Your task to perform on an android device: manage bookmarks in the chrome app Image 0: 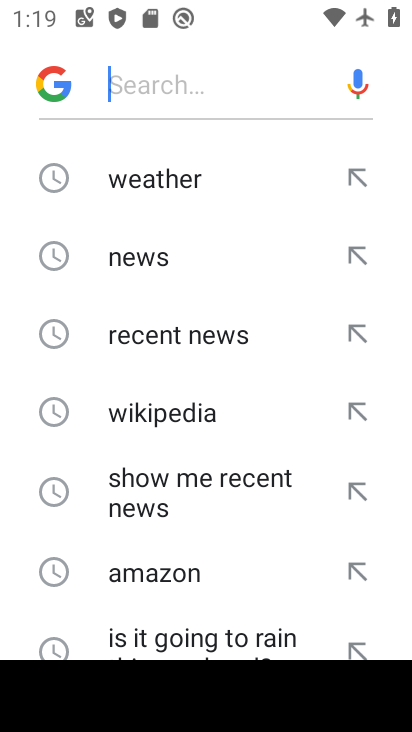
Step 0: press home button
Your task to perform on an android device: manage bookmarks in the chrome app Image 1: 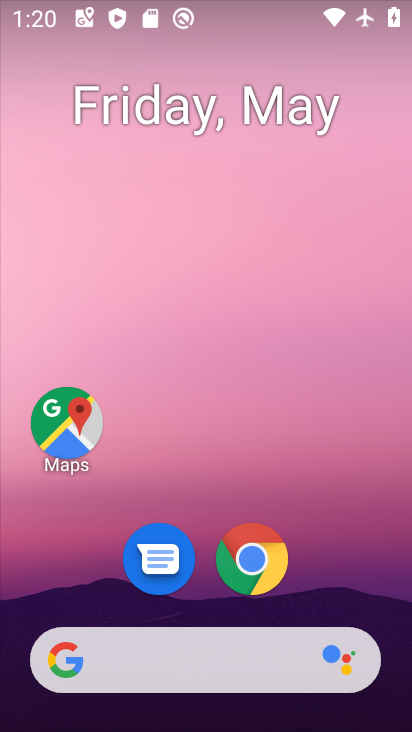
Step 1: click (257, 549)
Your task to perform on an android device: manage bookmarks in the chrome app Image 2: 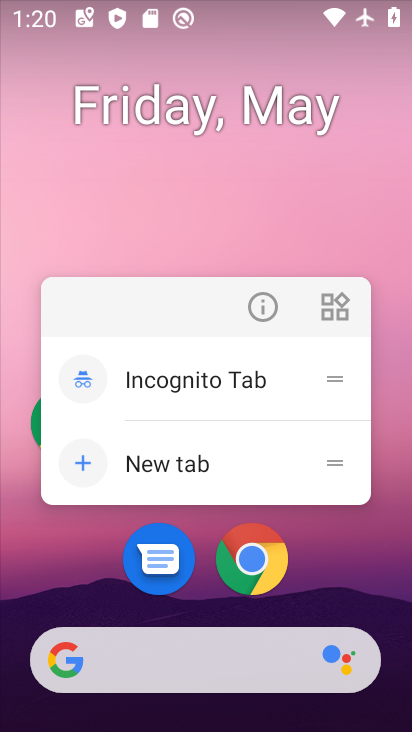
Step 2: click (260, 550)
Your task to perform on an android device: manage bookmarks in the chrome app Image 3: 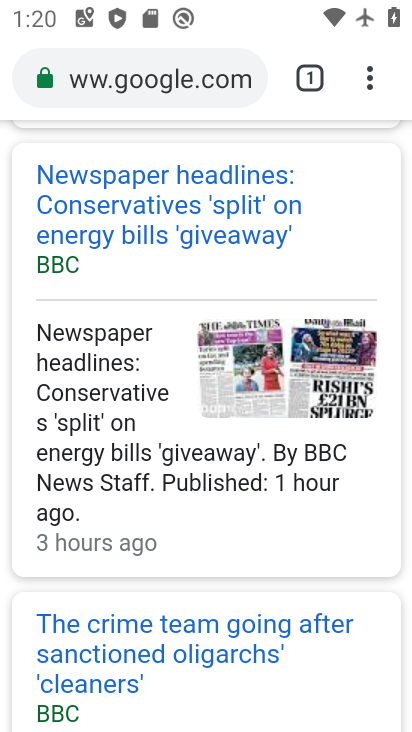
Step 3: drag from (378, 68) to (88, 306)
Your task to perform on an android device: manage bookmarks in the chrome app Image 4: 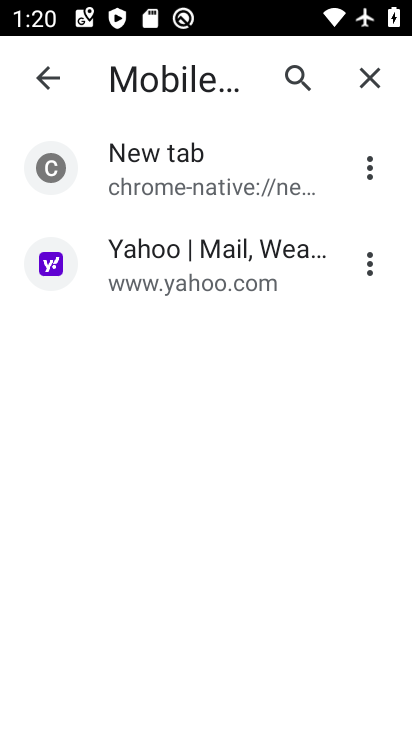
Step 4: click (368, 254)
Your task to perform on an android device: manage bookmarks in the chrome app Image 5: 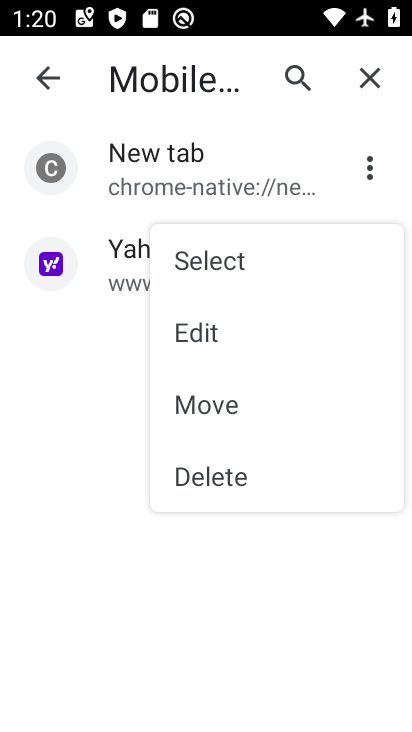
Step 5: click (220, 480)
Your task to perform on an android device: manage bookmarks in the chrome app Image 6: 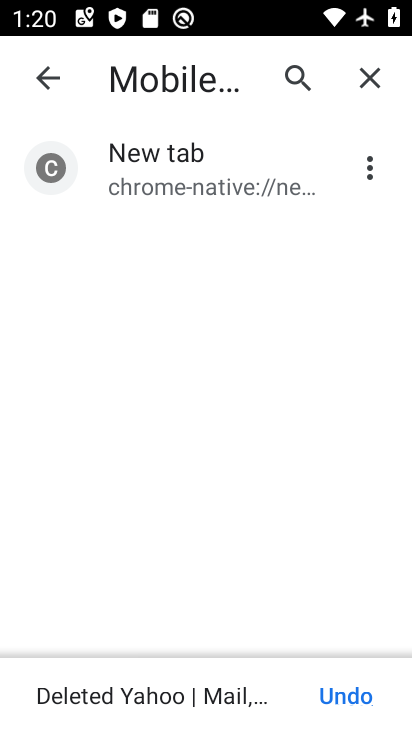
Step 6: task complete